Your task to perform on an android device: allow cookies in the chrome app Image 0: 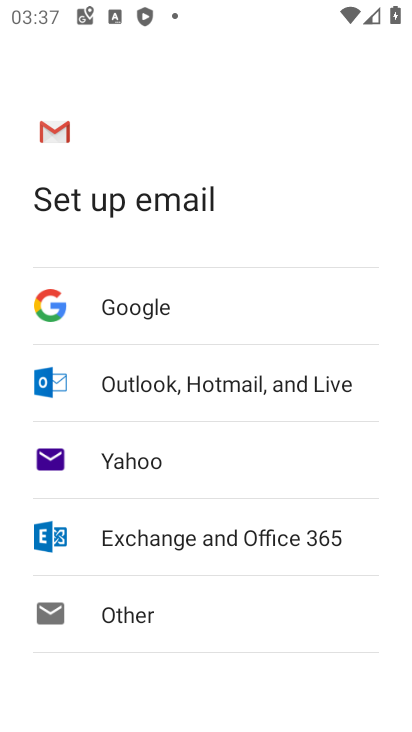
Step 0: press home button
Your task to perform on an android device: allow cookies in the chrome app Image 1: 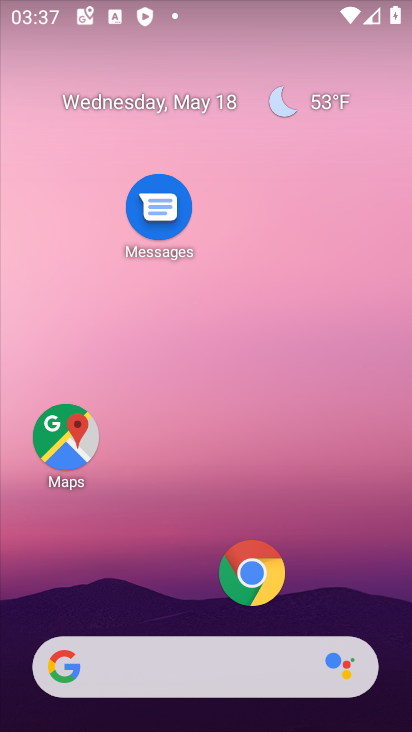
Step 1: click (269, 558)
Your task to perform on an android device: allow cookies in the chrome app Image 2: 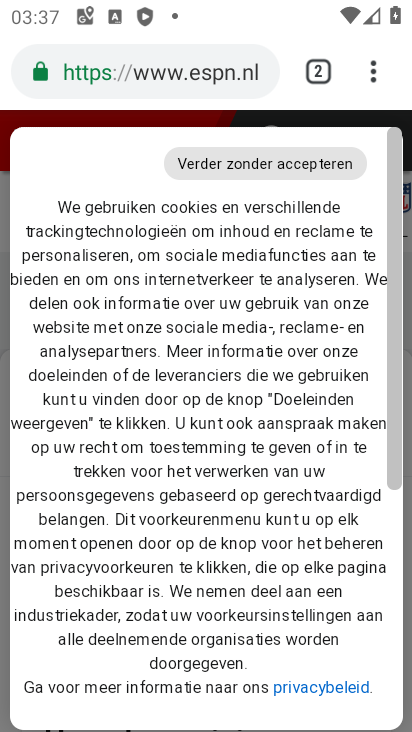
Step 2: drag from (370, 74) to (140, 573)
Your task to perform on an android device: allow cookies in the chrome app Image 3: 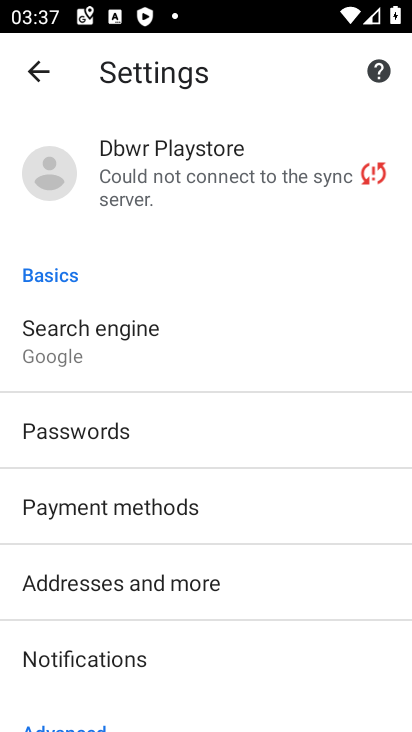
Step 3: drag from (186, 582) to (179, 310)
Your task to perform on an android device: allow cookies in the chrome app Image 4: 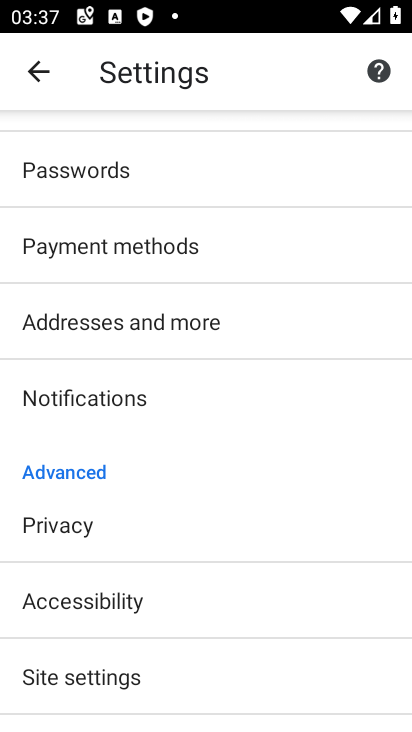
Step 4: click (114, 652)
Your task to perform on an android device: allow cookies in the chrome app Image 5: 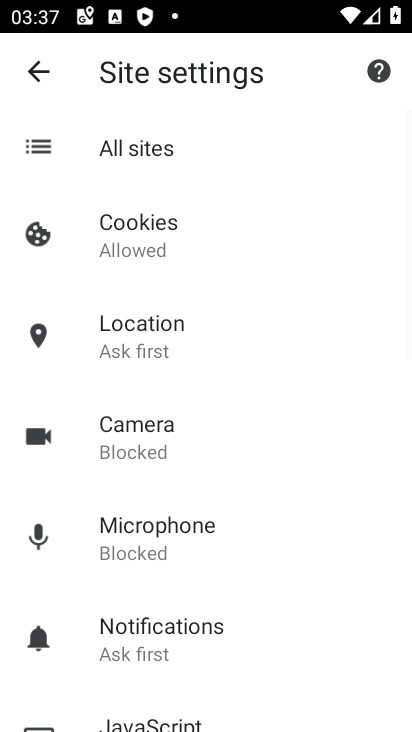
Step 5: click (147, 224)
Your task to perform on an android device: allow cookies in the chrome app Image 6: 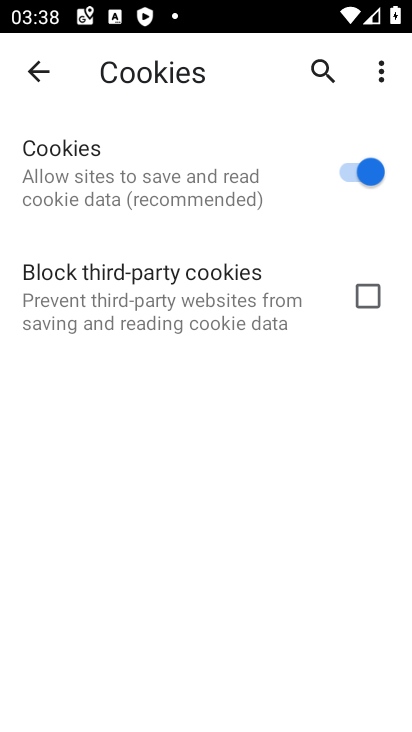
Step 6: task complete